Your task to perform on an android device: add a contact in the contacts app Image 0: 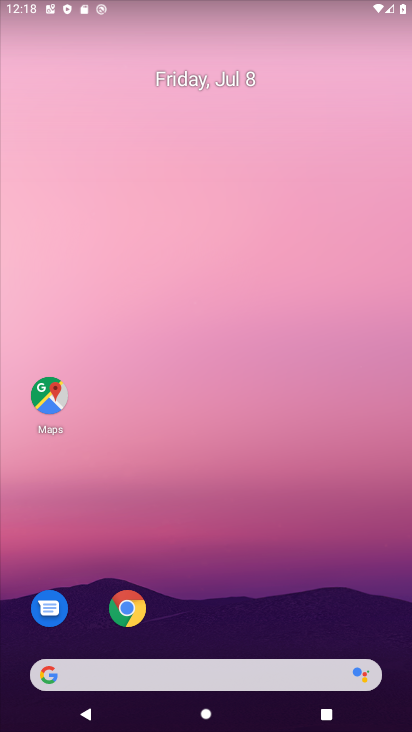
Step 0: drag from (266, 599) to (237, 237)
Your task to perform on an android device: add a contact in the contacts app Image 1: 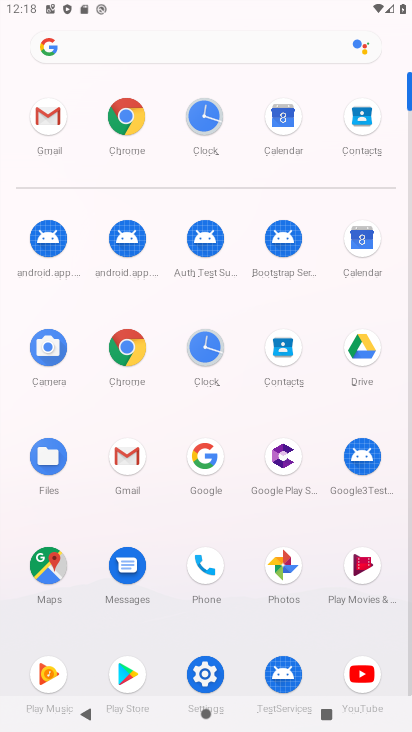
Step 1: click (375, 134)
Your task to perform on an android device: add a contact in the contacts app Image 2: 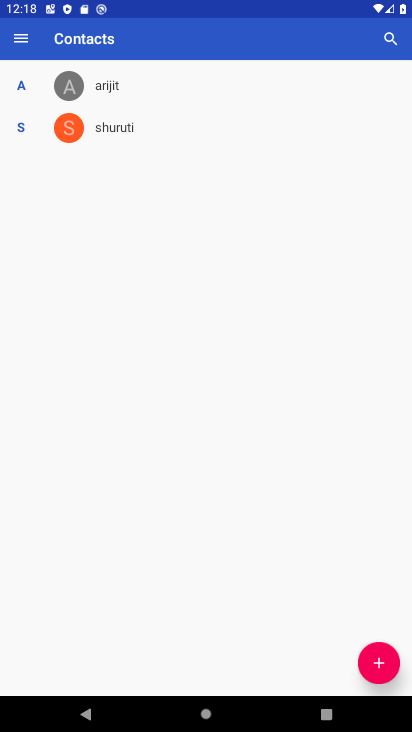
Step 2: click (379, 660)
Your task to perform on an android device: add a contact in the contacts app Image 3: 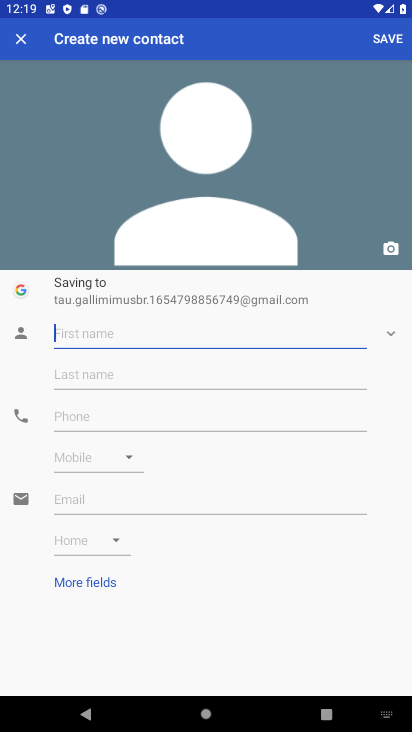
Step 3: type "fesefs"
Your task to perform on an android device: add a contact in the contacts app Image 4: 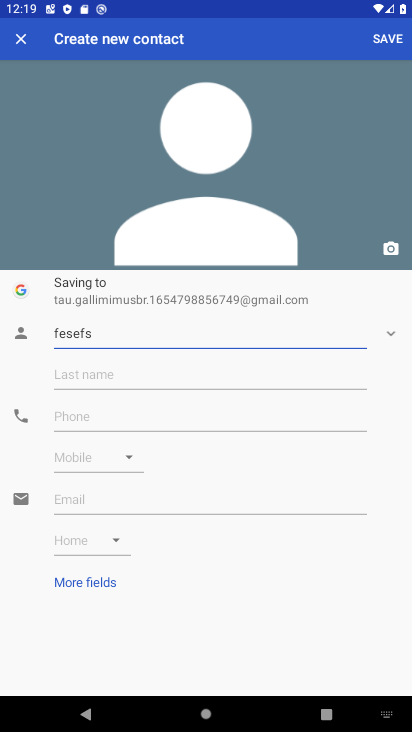
Step 4: click (160, 368)
Your task to perform on an android device: add a contact in the contacts app Image 5: 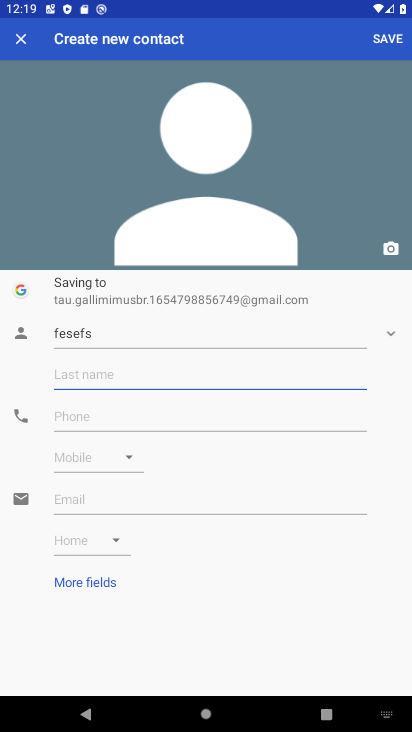
Step 5: type "fvscf"
Your task to perform on an android device: add a contact in the contacts app Image 6: 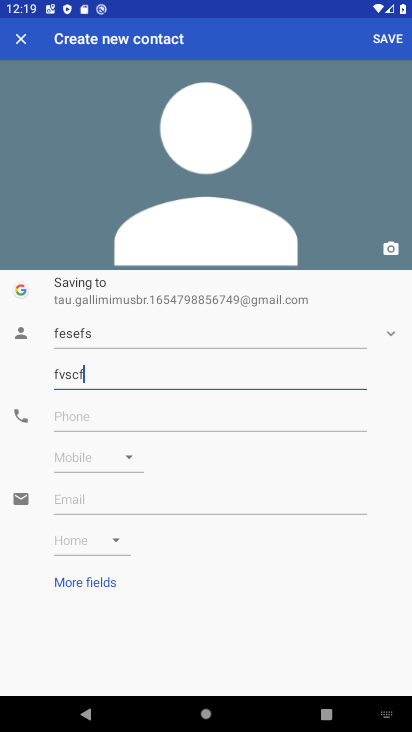
Step 6: click (95, 404)
Your task to perform on an android device: add a contact in the contacts app Image 7: 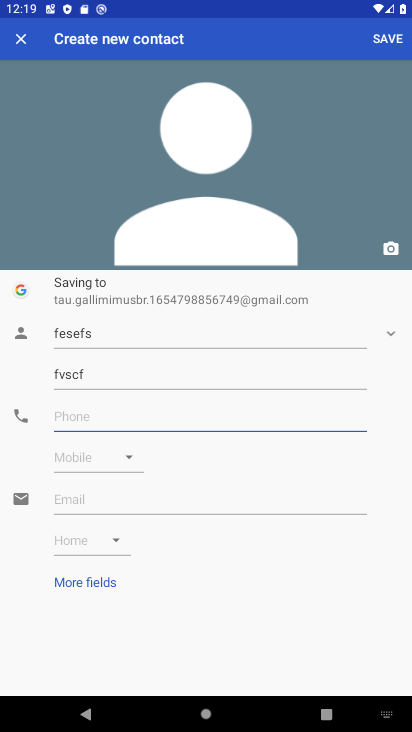
Step 7: type "1231242123"
Your task to perform on an android device: add a contact in the contacts app Image 8: 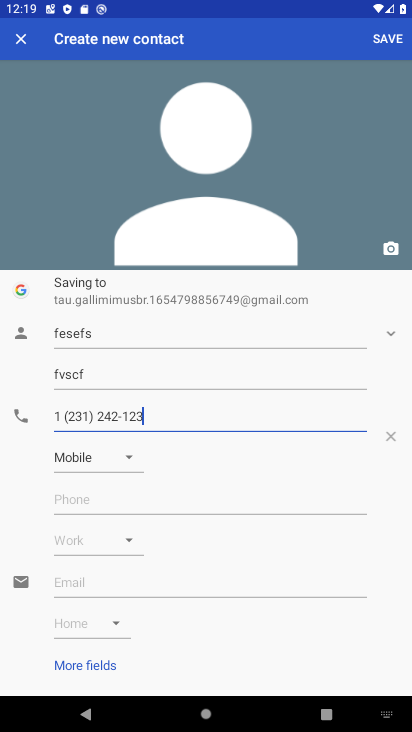
Step 8: click (397, 37)
Your task to perform on an android device: add a contact in the contacts app Image 9: 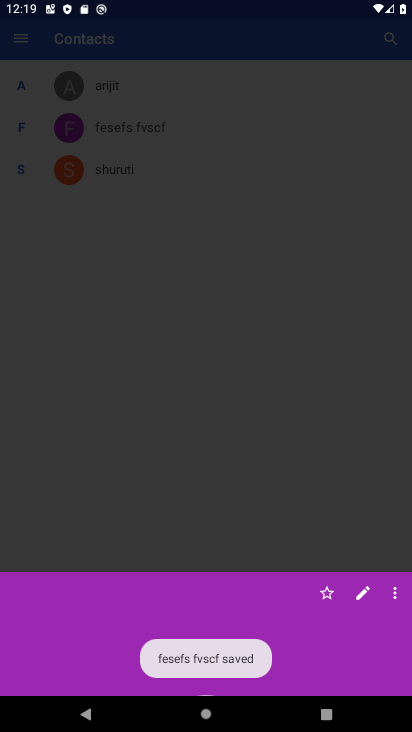
Step 9: task complete